Your task to perform on an android device: change the clock display to digital Image 0: 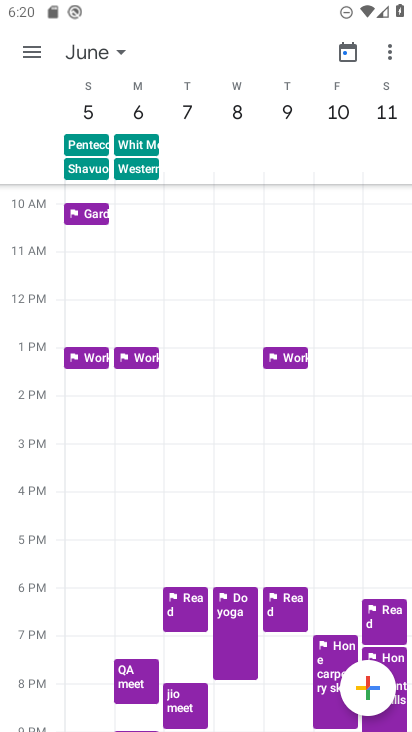
Step 0: press home button
Your task to perform on an android device: change the clock display to digital Image 1: 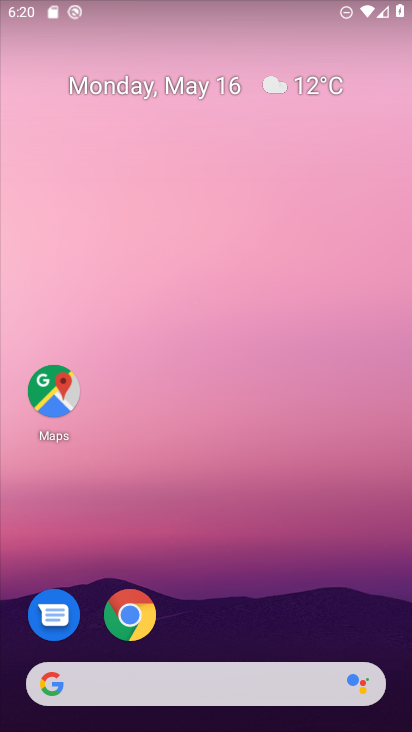
Step 1: drag from (247, 320) to (299, 120)
Your task to perform on an android device: change the clock display to digital Image 2: 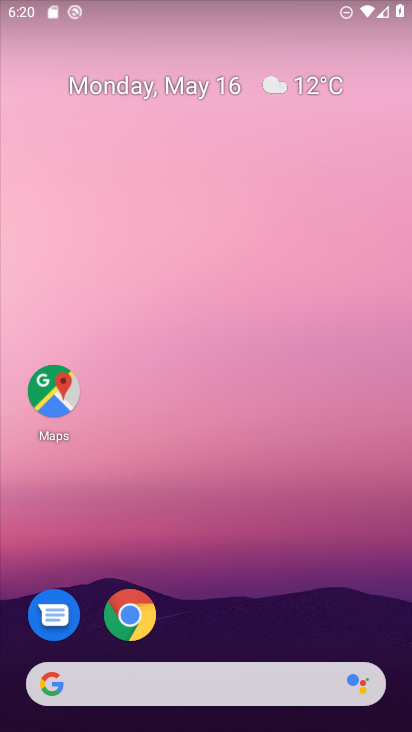
Step 2: drag from (211, 640) to (362, 58)
Your task to perform on an android device: change the clock display to digital Image 3: 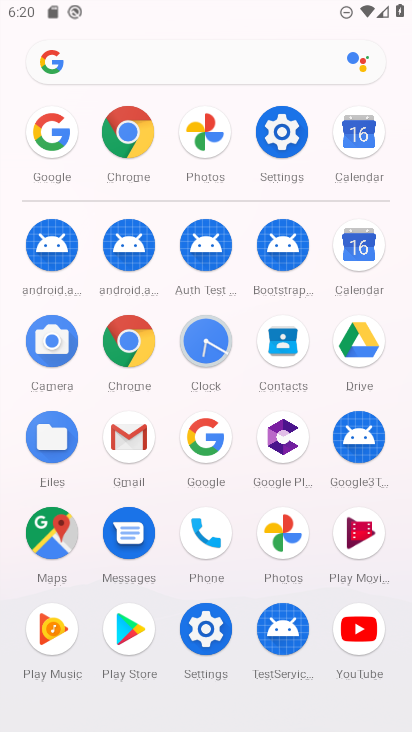
Step 3: click (209, 354)
Your task to perform on an android device: change the clock display to digital Image 4: 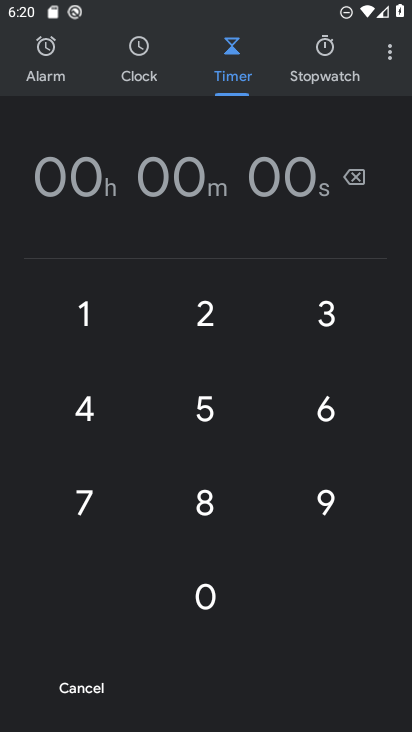
Step 4: click (400, 51)
Your task to perform on an android device: change the clock display to digital Image 5: 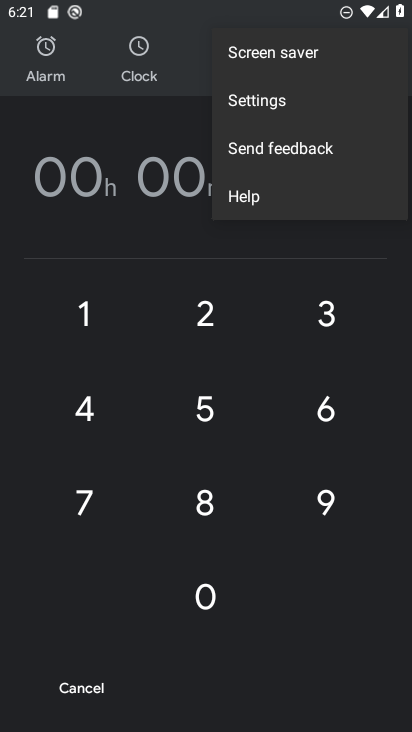
Step 5: click (311, 103)
Your task to perform on an android device: change the clock display to digital Image 6: 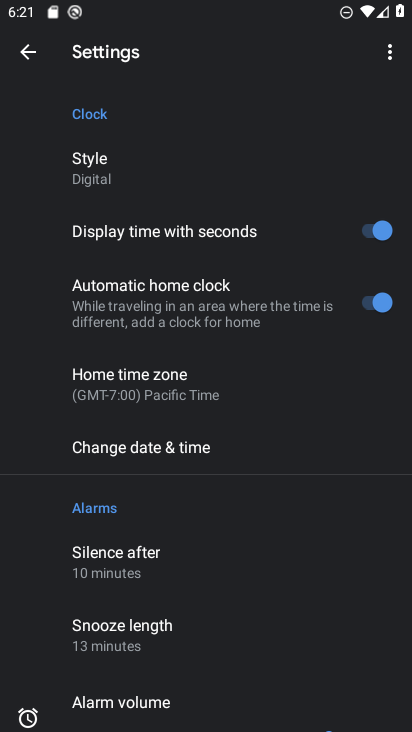
Step 6: task complete